Your task to perform on an android device: see tabs open on other devices in the chrome app Image 0: 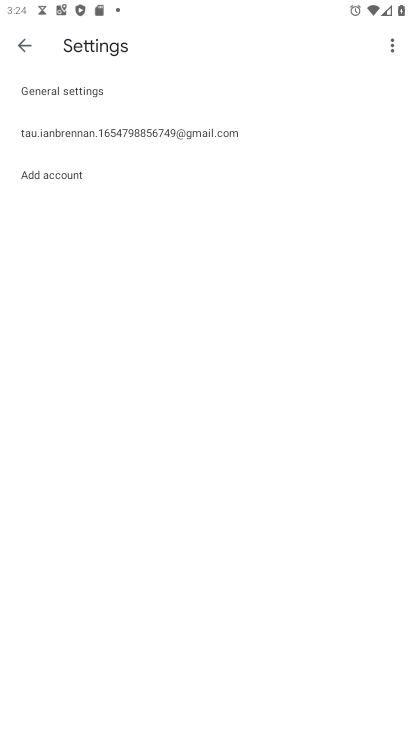
Step 0: press home button
Your task to perform on an android device: see tabs open on other devices in the chrome app Image 1: 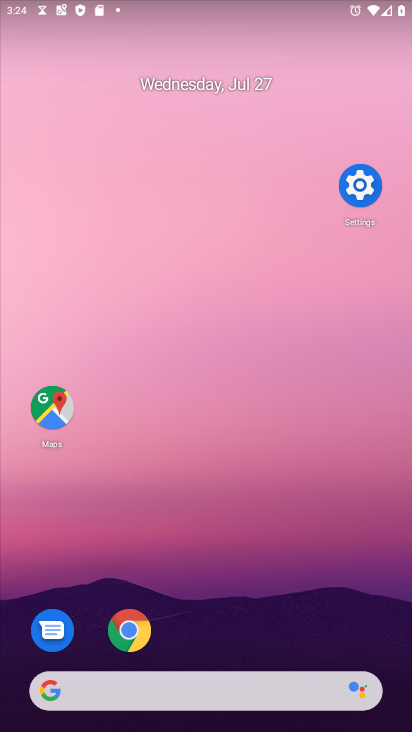
Step 1: click (135, 624)
Your task to perform on an android device: see tabs open on other devices in the chrome app Image 2: 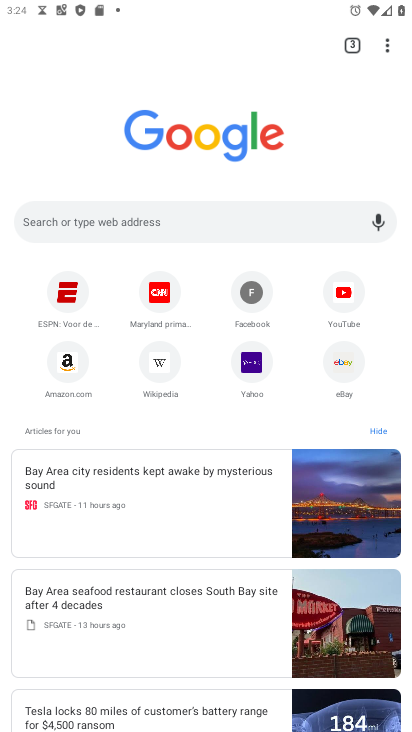
Step 2: task complete